Your task to perform on an android device: turn on the 12-hour format for clock Image 0: 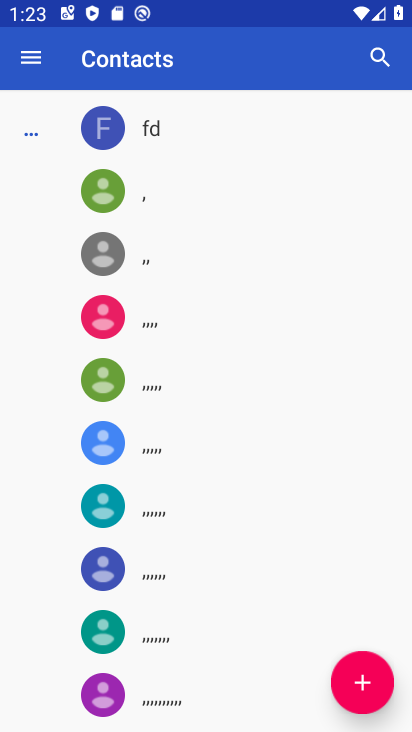
Step 0: press home button
Your task to perform on an android device: turn on the 12-hour format for clock Image 1: 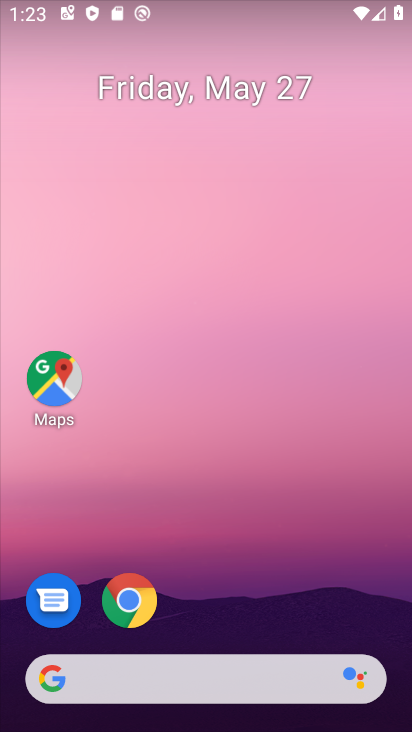
Step 1: drag from (226, 725) to (241, 165)
Your task to perform on an android device: turn on the 12-hour format for clock Image 2: 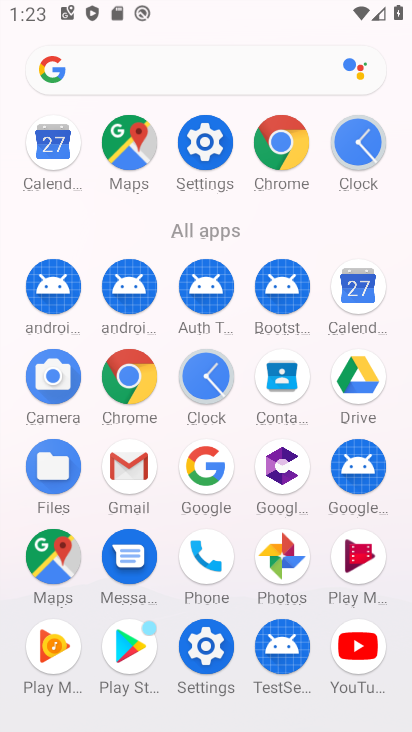
Step 2: click (205, 371)
Your task to perform on an android device: turn on the 12-hour format for clock Image 3: 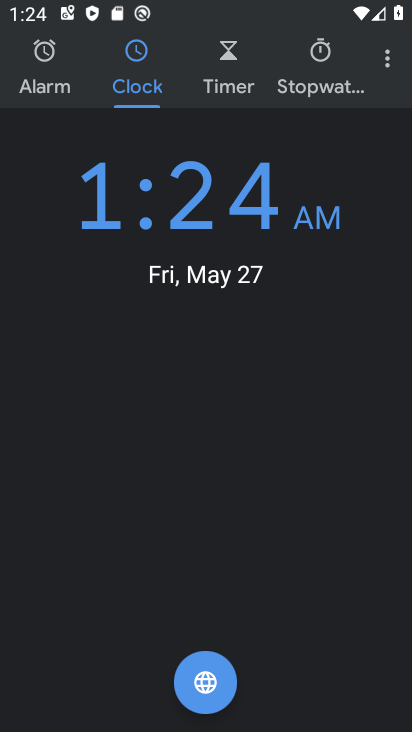
Step 3: click (388, 65)
Your task to perform on an android device: turn on the 12-hour format for clock Image 4: 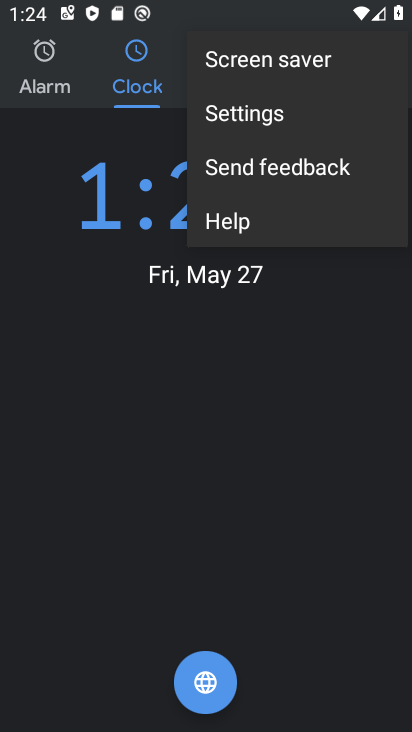
Step 4: click (251, 114)
Your task to perform on an android device: turn on the 12-hour format for clock Image 5: 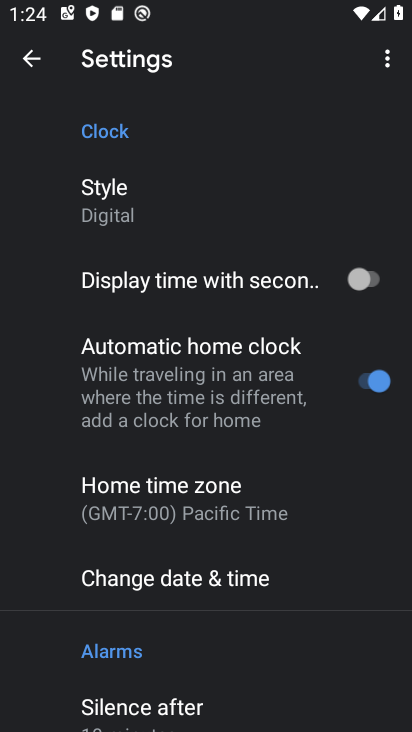
Step 5: click (160, 577)
Your task to perform on an android device: turn on the 12-hour format for clock Image 6: 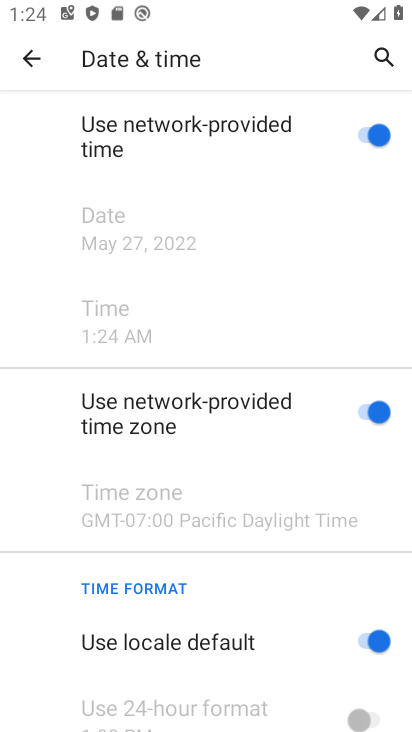
Step 6: task complete